Your task to perform on an android device: read, delete, or share a saved page in the chrome app Image 0: 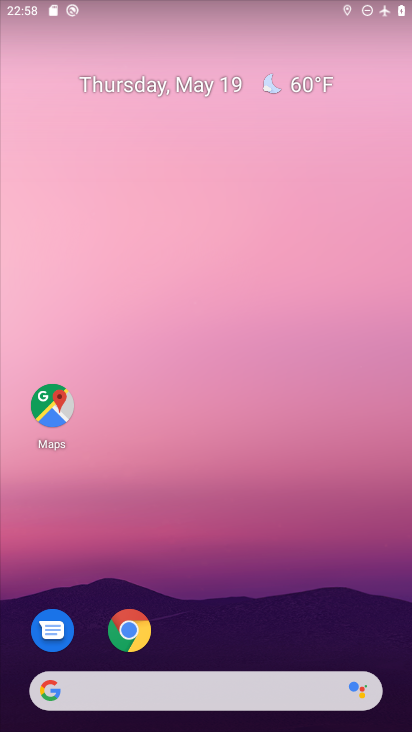
Step 0: click (132, 627)
Your task to perform on an android device: read, delete, or share a saved page in the chrome app Image 1: 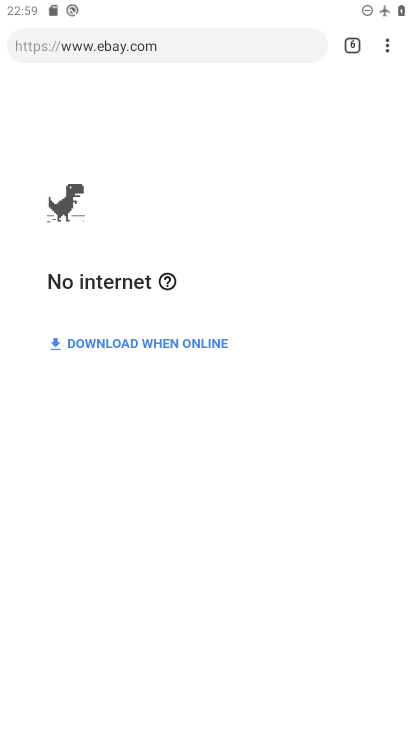
Step 1: click (391, 46)
Your task to perform on an android device: read, delete, or share a saved page in the chrome app Image 2: 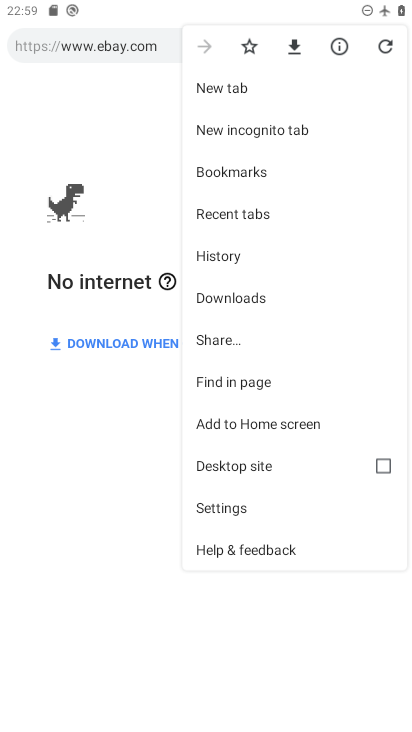
Step 2: click (229, 295)
Your task to perform on an android device: read, delete, or share a saved page in the chrome app Image 3: 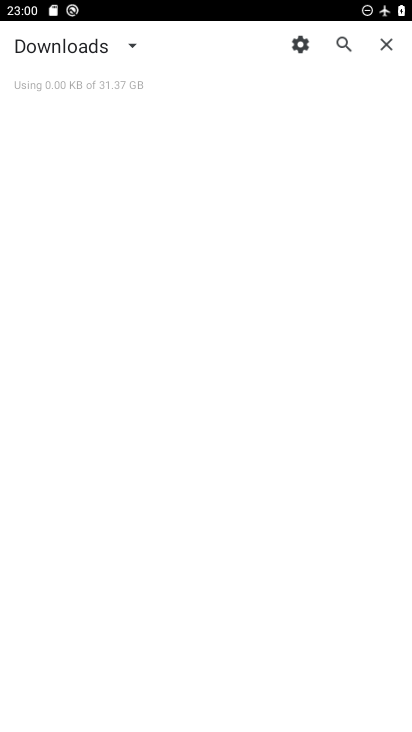
Step 3: click (383, 39)
Your task to perform on an android device: read, delete, or share a saved page in the chrome app Image 4: 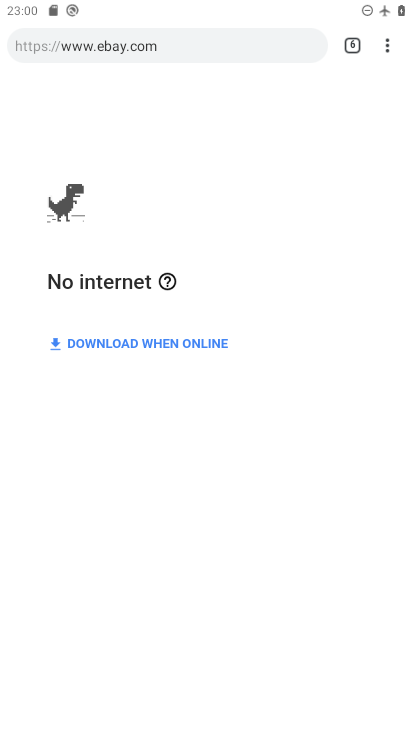
Step 4: click (387, 50)
Your task to perform on an android device: read, delete, or share a saved page in the chrome app Image 5: 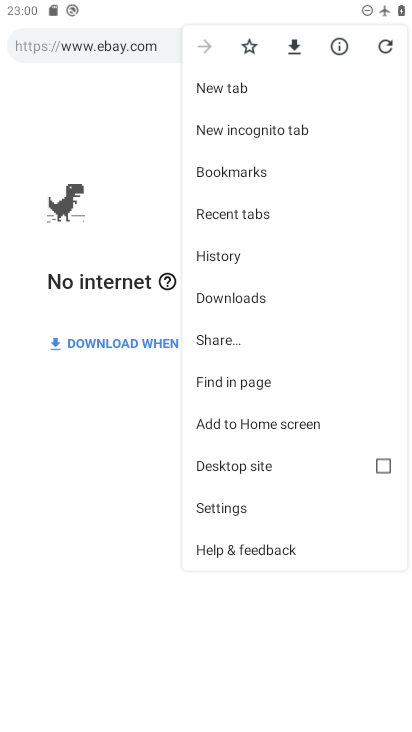
Step 5: click (231, 291)
Your task to perform on an android device: read, delete, or share a saved page in the chrome app Image 6: 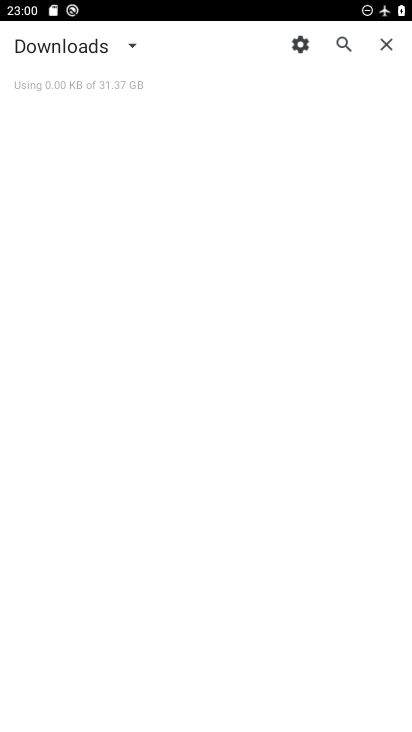
Step 6: task complete